Your task to perform on an android device: find snoozed emails in the gmail app Image 0: 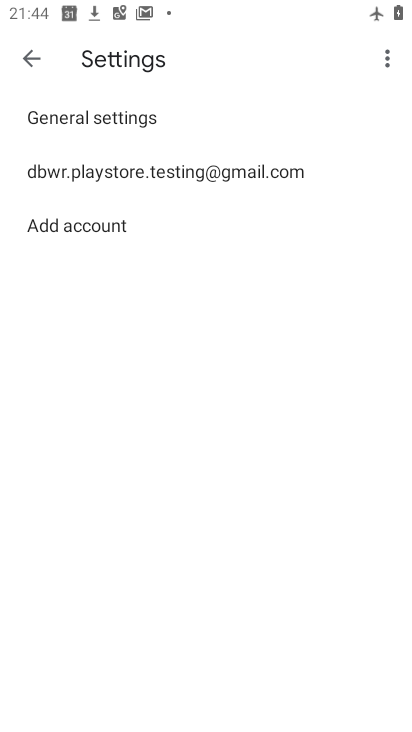
Step 0: press home button
Your task to perform on an android device: find snoozed emails in the gmail app Image 1: 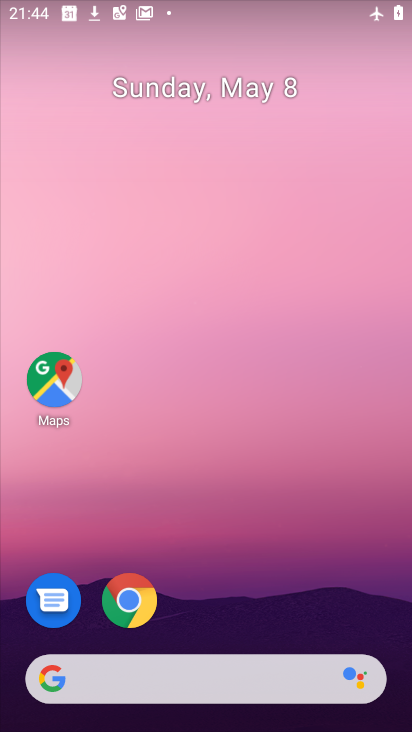
Step 1: drag from (257, 686) to (279, 265)
Your task to perform on an android device: find snoozed emails in the gmail app Image 2: 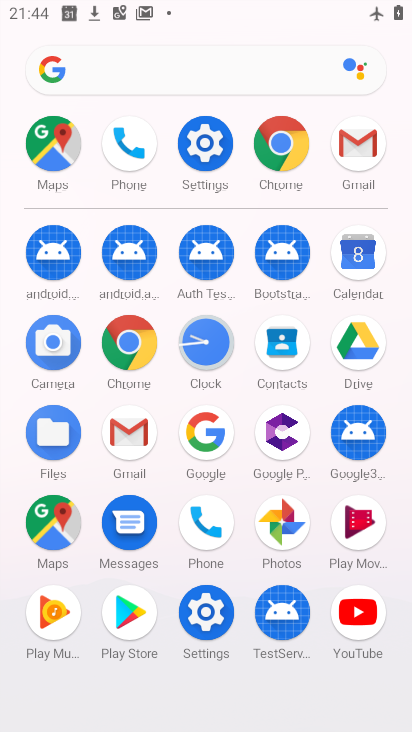
Step 2: click (147, 445)
Your task to perform on an android device: find snoozed emails in the gmail app Image 3: 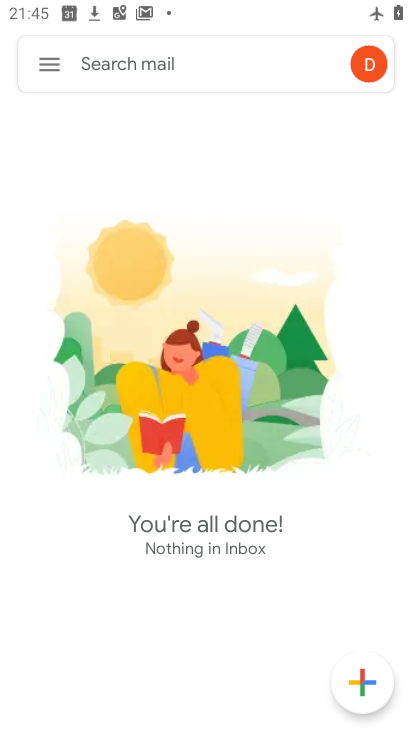
Step 3: click (66, 60)
Your task to perform on an android device: find snoozed emails in the gmail app Image 4: 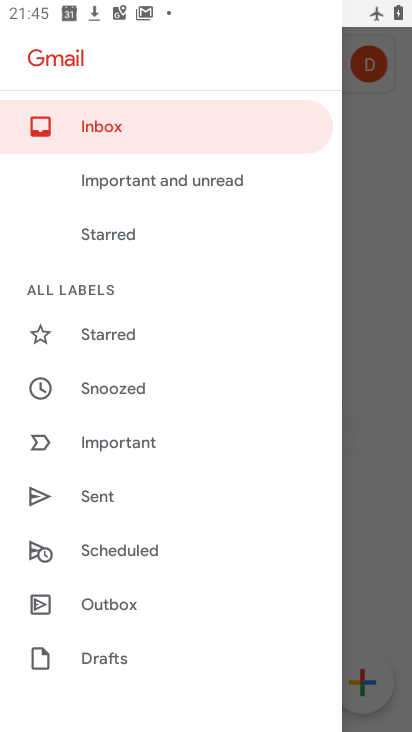
Step 4: click (129, 394)
Your task to perform on an android device: find snoozed emails in the gmail app Image 5: 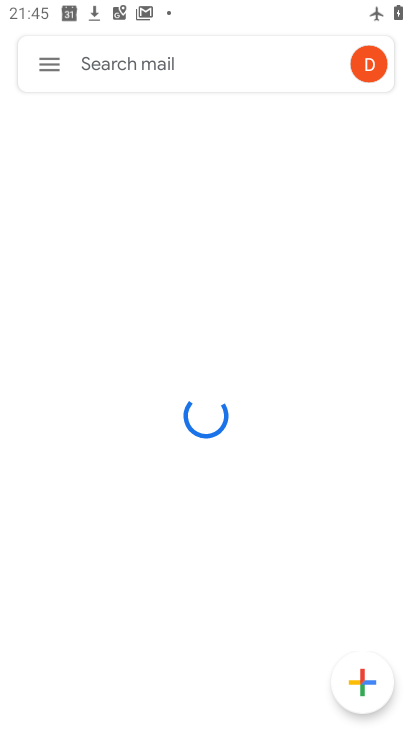
Step 5: task complete